Your task to perform on an android device: make emails show in primary in the gmail app Image 0: 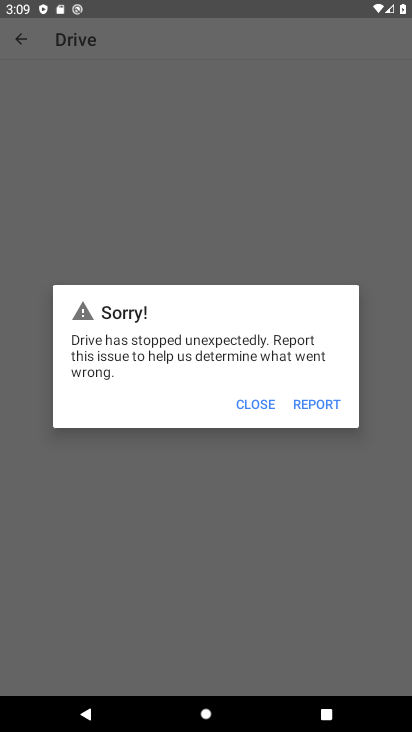
Step 0: press home button
Your task to perform on an android device: make emails show in primary in the gmail app Image 1: 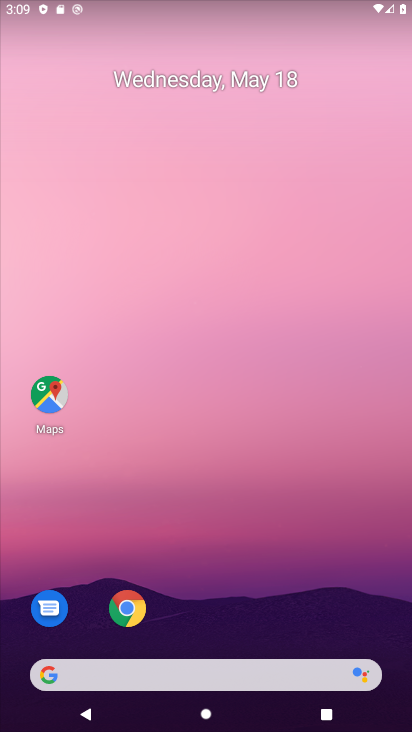
Step 1: drag from (259, 354) to (251, 99)
Your task to perform on an android device: make emails show in primary in the gmail app Image 2: 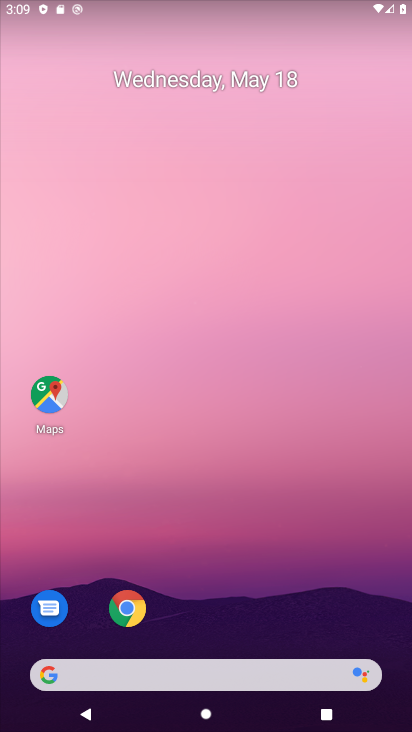
Step 2: drag from (175, 632) to (379, 31)
Your task to perform on an android device: make emails show in primary in the gmail app Image 3: 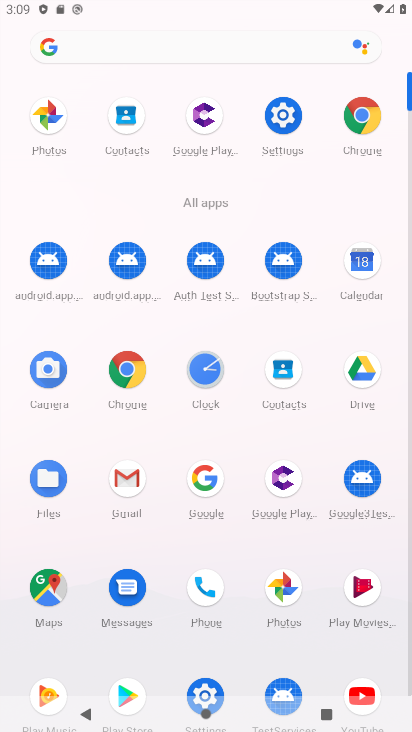
Step 3: click (139, 479)
Your task to perform on an android device: make emails show in primary in the gmail app Image 4: 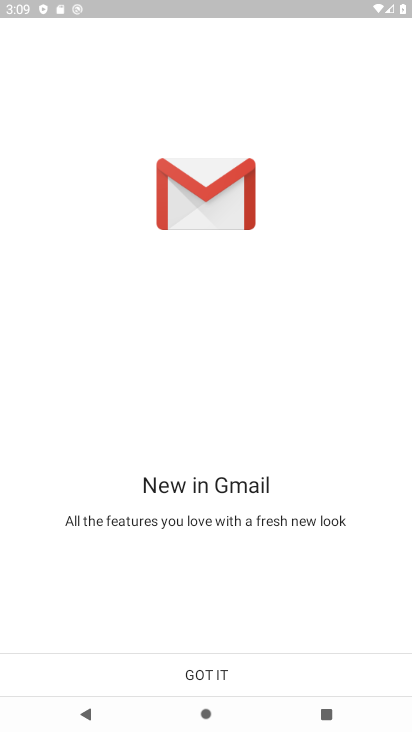
Step 4: click (214, 666)
Your task to perform on an android device: make emails show in primary in the gmail app Image 5: 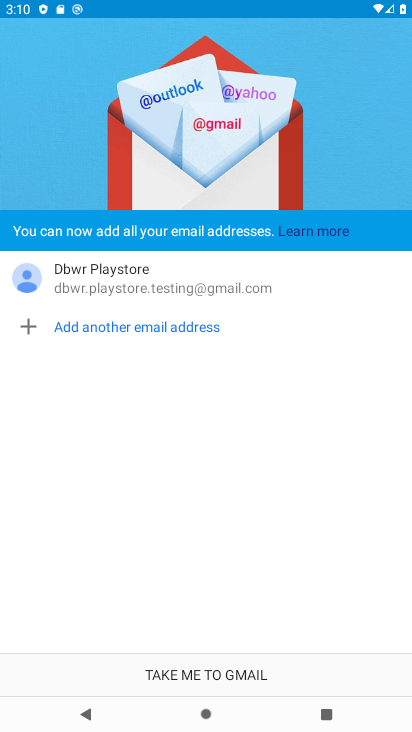
Step 5: click (214, 666)
Your task to perform on an android device: make emails show in primary in the gmail app Image 6: 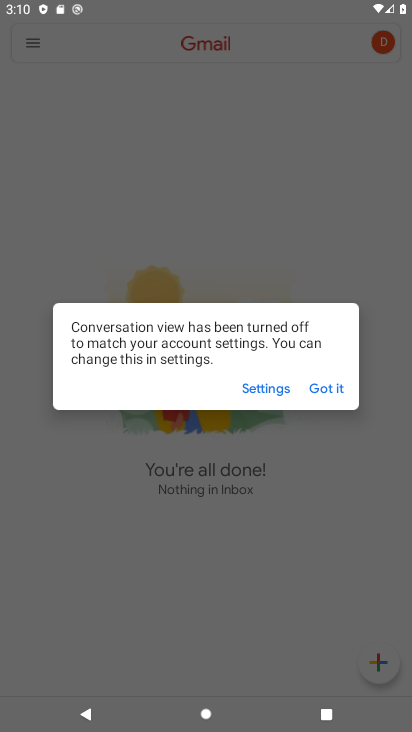
Step 6: click (336, 387)
Your task to perform on an android device: make emails show in primary in the gmail app Image 7: 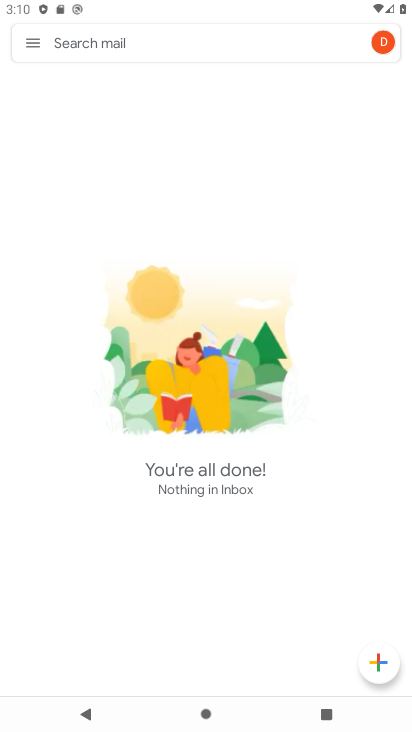
Step 7: click (36, 38)
Your task to perform on an android device: make emails show in primary in the gmail app Image 8: 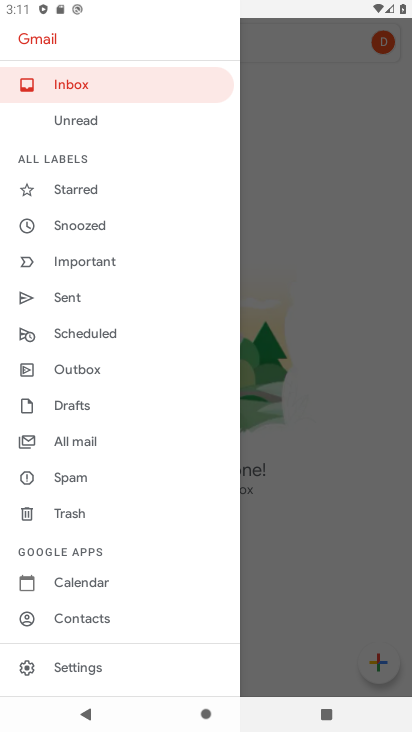
Step 8: task complete